Your task to perform on an android device: Is it going to rain this weekend? Image 0: 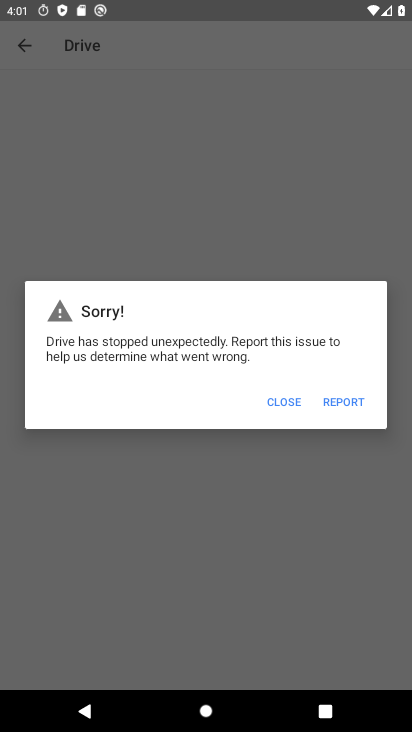
Step 0: press home button
Your task to perform on an android device: Is it going to rain this weekend? Image 1: 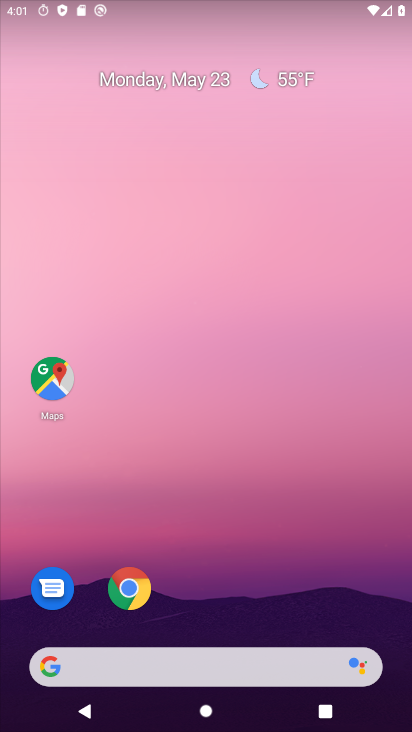
Step 1: drag from (241, 593) to (260, 127)
Your task to perform on an android device: Is it going to rain this weekend? Image 2: 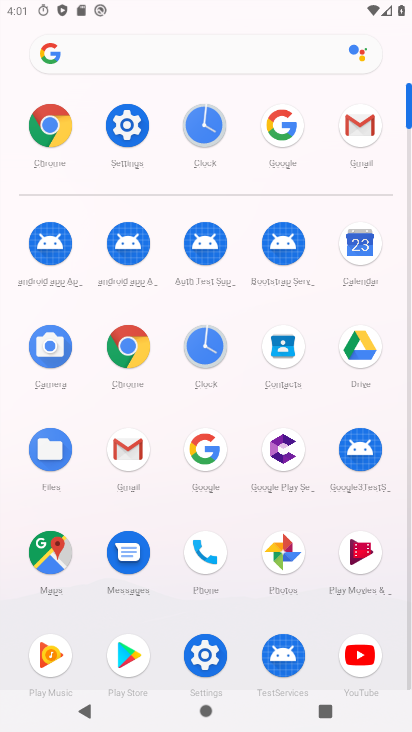
Step 2: click (286, 120)
Your task to perform on an android device: Is it going to rain this weekend? Image 3: 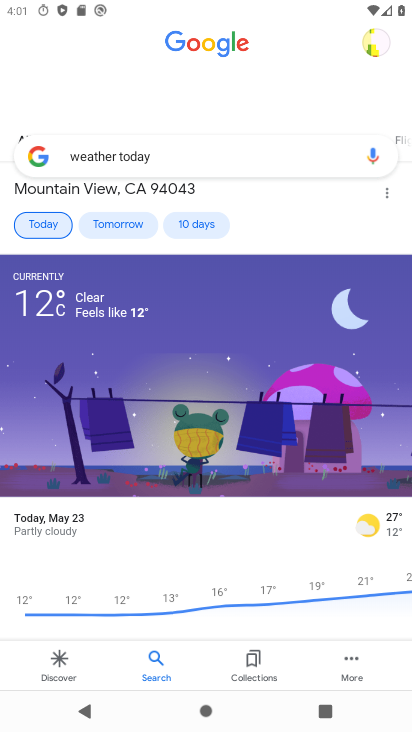
Step 3: click (191, 155)
Your task to perform on an android device: Is it going to rain this weekend? Image 4: 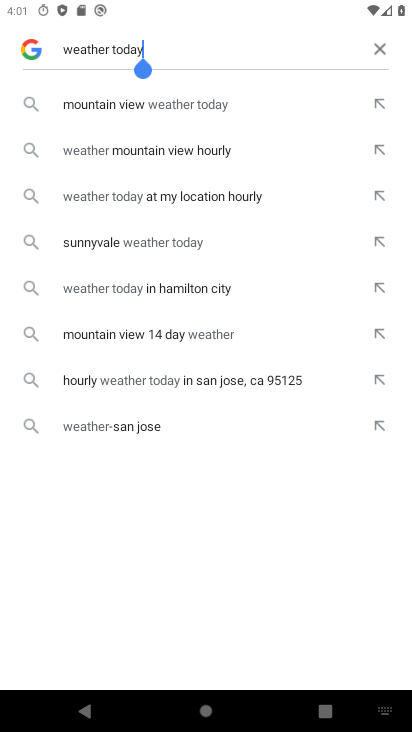
Step 4: click (364, 48)
Your task to perform on an android device: Is it going to rain this weekend? Image 5: 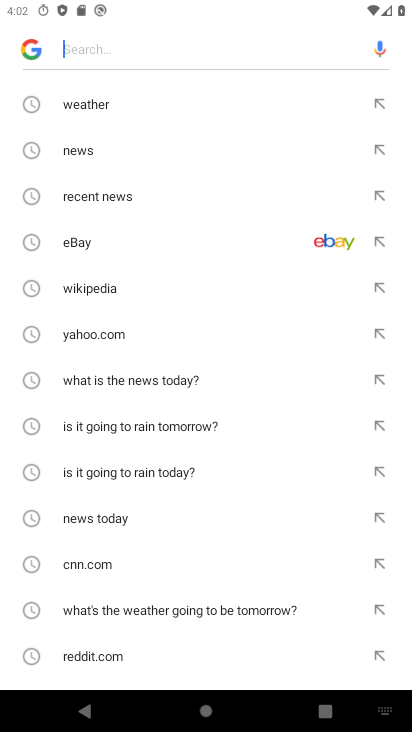
Step 5: type "is it going to rain this weekend"
Your task to perform on an android device: Is it going to rain this weekend? Image 6: 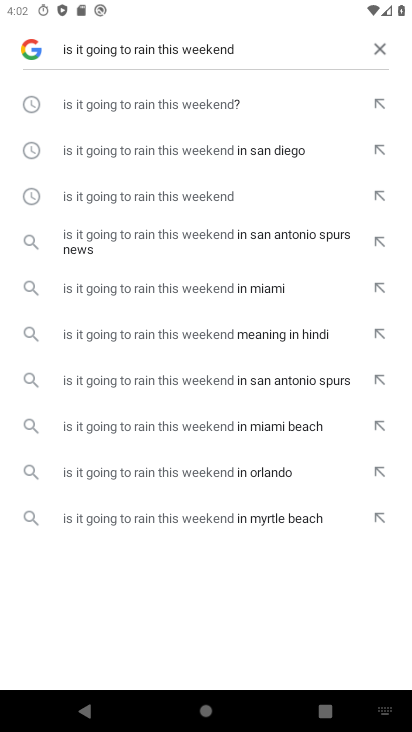
Step 6: click (187, 91)
Your task to perform on an android device: Is it going to rain this weekend? Image 7: 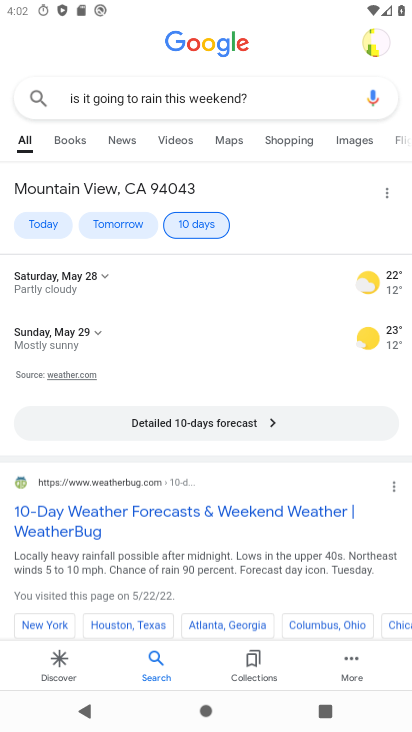
Step 7: task complete